Your task to perform on an android device: check out phone information Image 0: 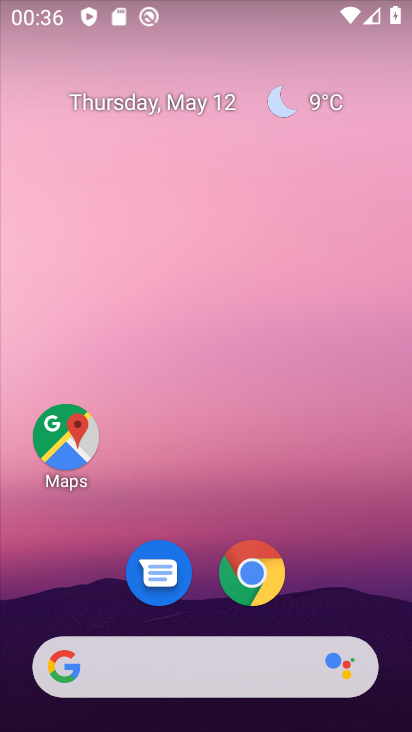
Step 0: drag from (191, 616) to (86, 49)
Your task to perform on an android device: check out phone information Image 1: 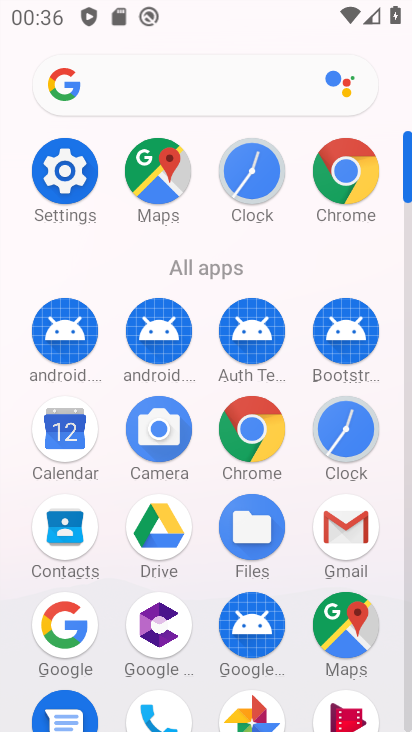
Step 1: click (61, 197)
Your task to perform on an android device: check out phone information Image 2: 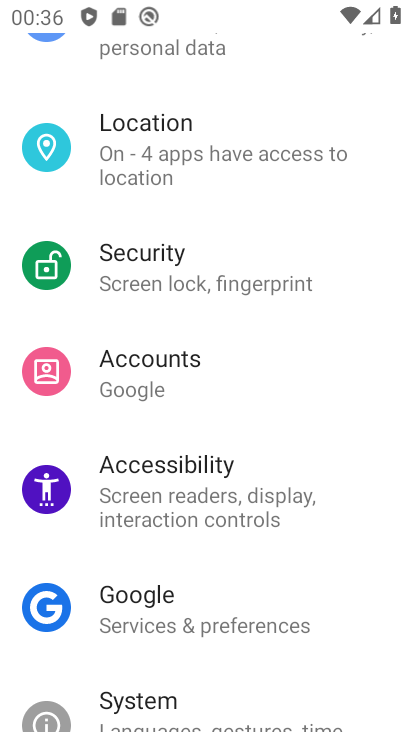
Step 2: drag from (163, 585) to (221, 72)
Your task to perform on an android device: check out phone information Image 3: 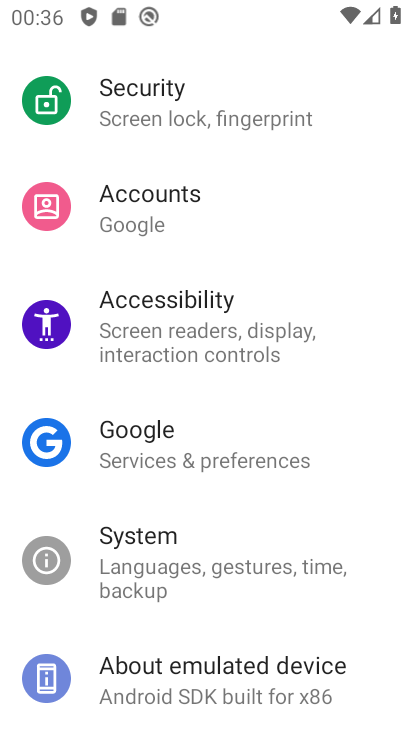
Step 3: drag from (243, 613) to (243, 410)
Your task to perform on an android device: check out phone information Image 4: 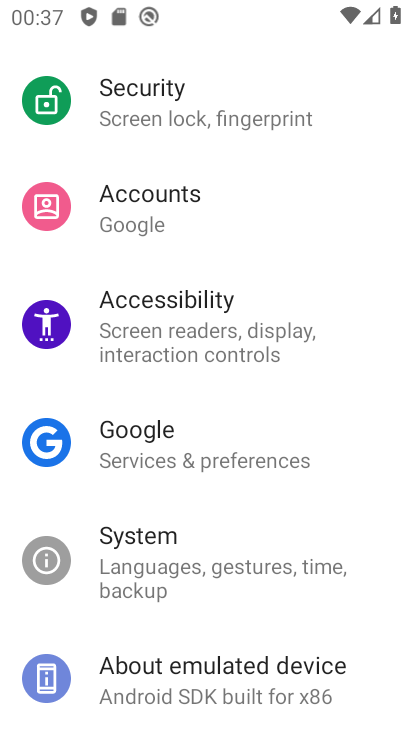
Step 4: drag from (163, 612) to (200, 358)
Your task to perform on an android device: check out phone information Image 5: 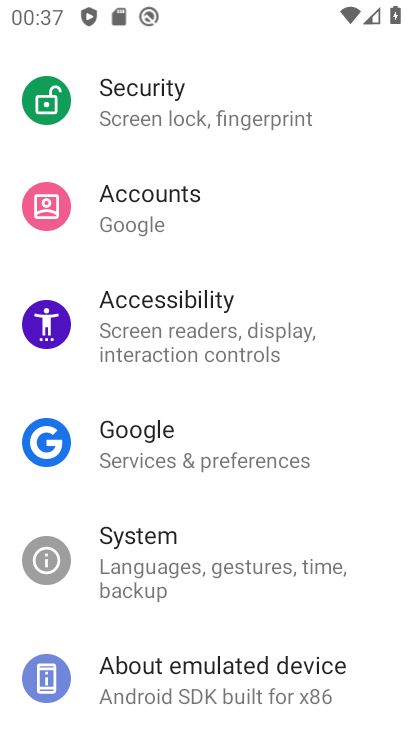
Step 5: click (157, 697)
Your task to perform on an android device: check out phone information Image 6: 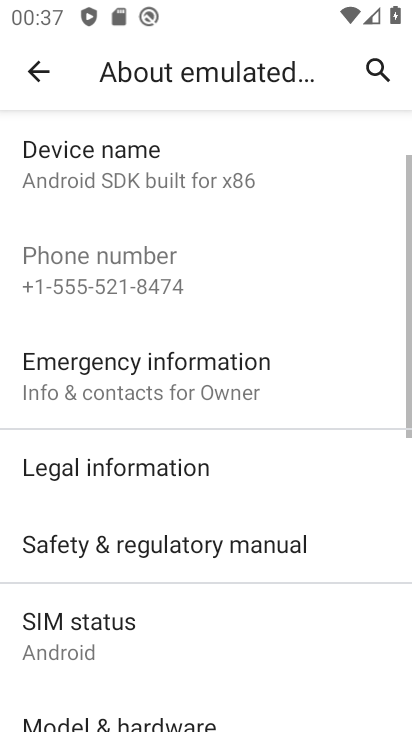
Step 6: task complete